Your task to perform on an android device: set default search engine in the chrome app Image 0: 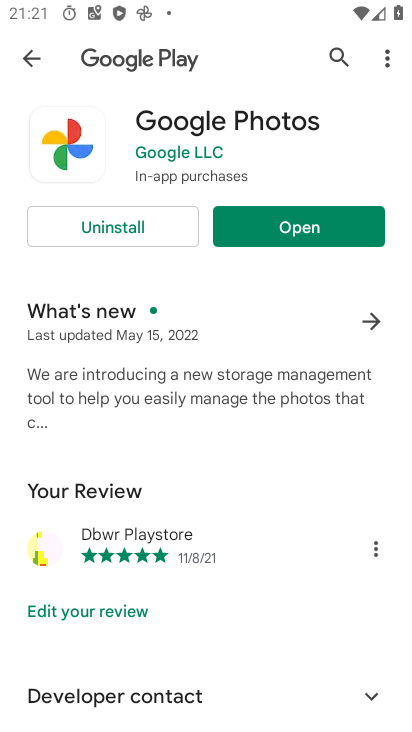
Step 0: press home button
Your task to perform on an android device: set default search engine in the chrome app Image 1: 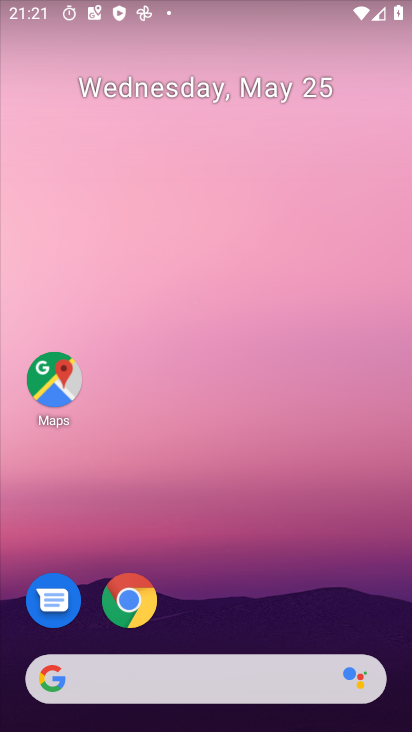
Step 1: drag from (356, 617) to (282, 266)
Your task to perform on an android device: set default search engine in the chrome app Image 2: 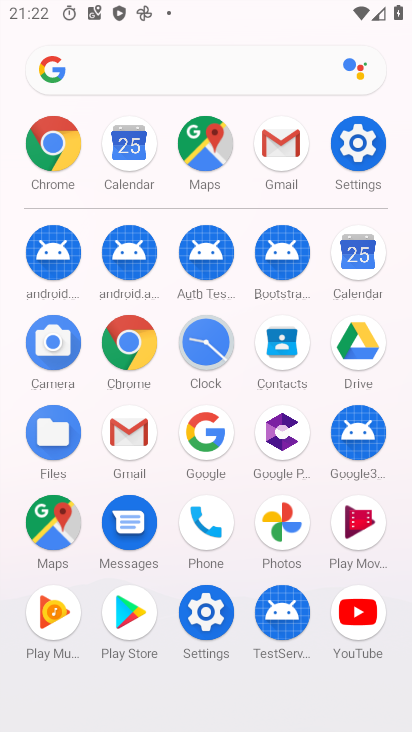
Step 2: click (150, 358)
Your task to perform on an android device: set default search engine in the chrome app Image 3: 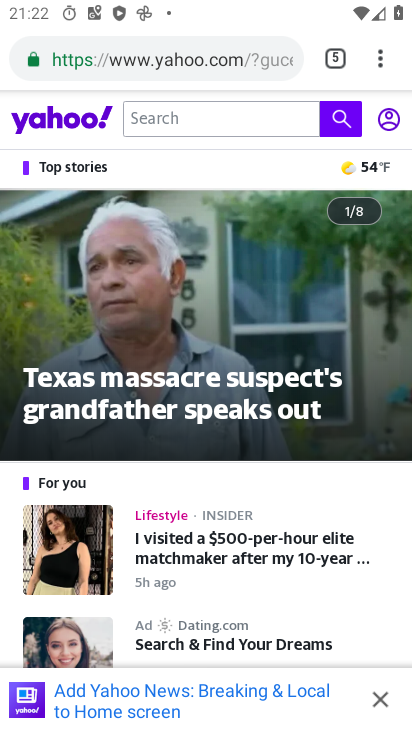
Step 3: drag from (386, 71) to (229, 643)
Your task to perform on an android device: set default search engine in the chrome app Image 4: 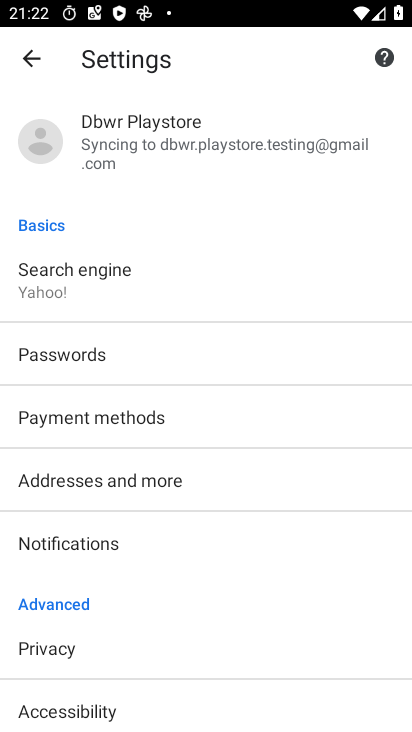
Step 4: drag from (231, 626) to (287, 325)
Your task to perform on an android device: set default search engine in the chrome app Image 5: 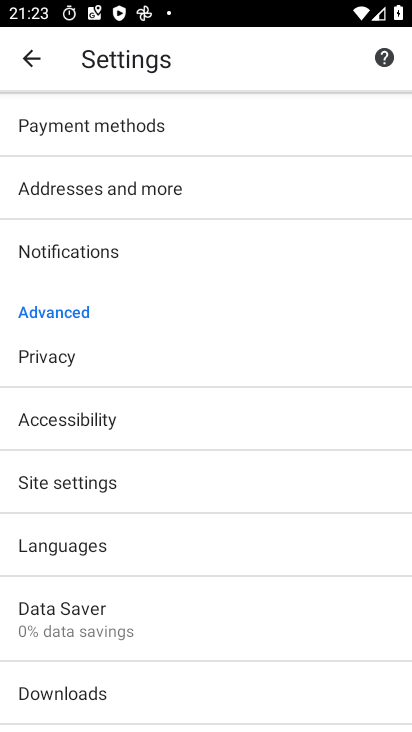
Step 5: drag from (202, 661) to (227, 388)
Your task to perform on an android device: set default search engine in the chrome app Image 6: 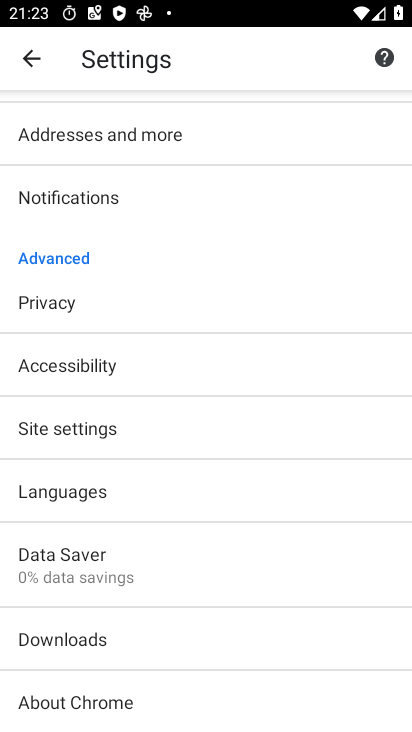
Step 6: drag from (247, 233) to (218, 581)
Your task to perform on an android device: set default search engine in the chrome app Image 7: 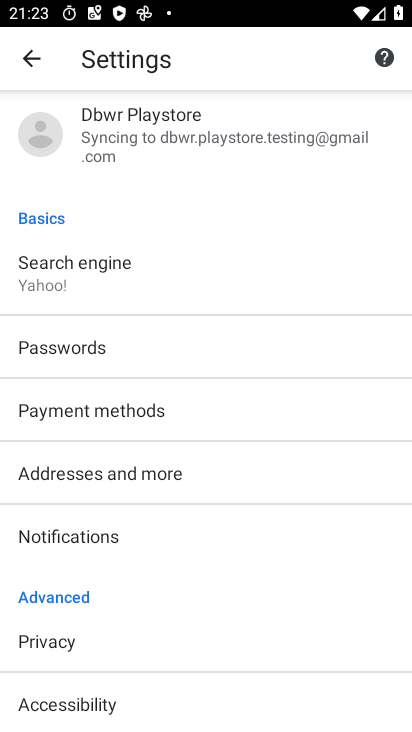
Step 7: click (66, 268)
Your task to perform on an android device: set default search engine in the chrome app Image 8: 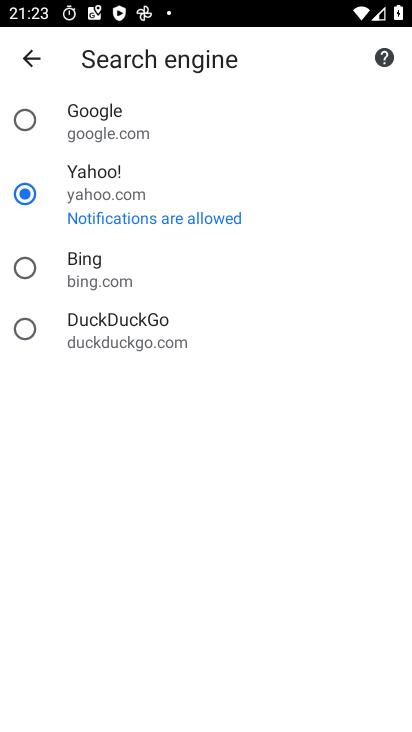
Step 8: click (28, 120)
Your task to perform on an android device: set default search engine in the chrome app Image 9: 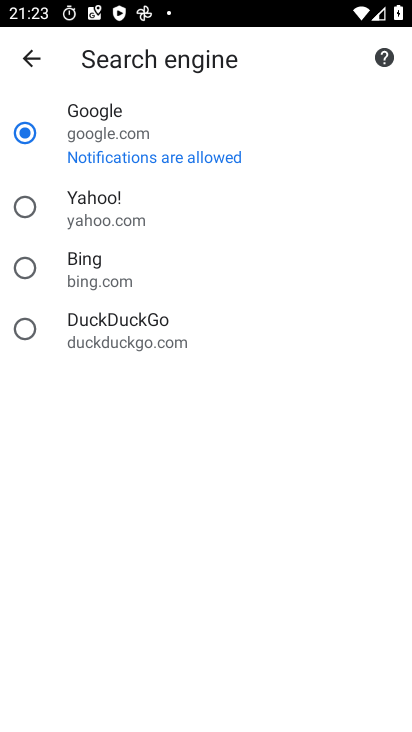
Step 9: task complete